Your task to perform on an android device: move a message to another label in the gmail app Image 0: 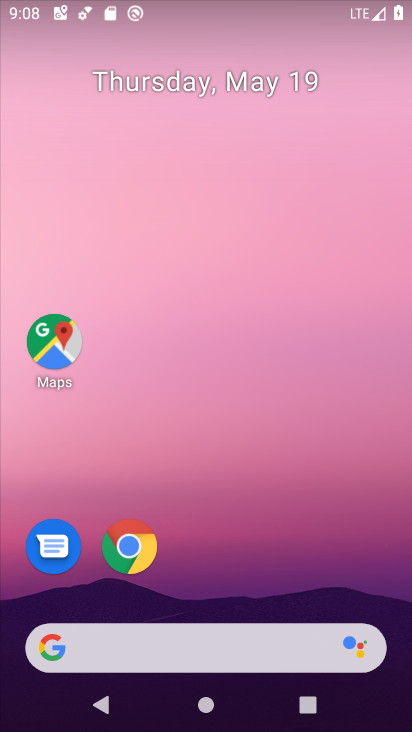
Step 0: drag from (279, 714) to (181, 96)
Your task to perform on an android device: move a message to another label in the gmail app Image 1: 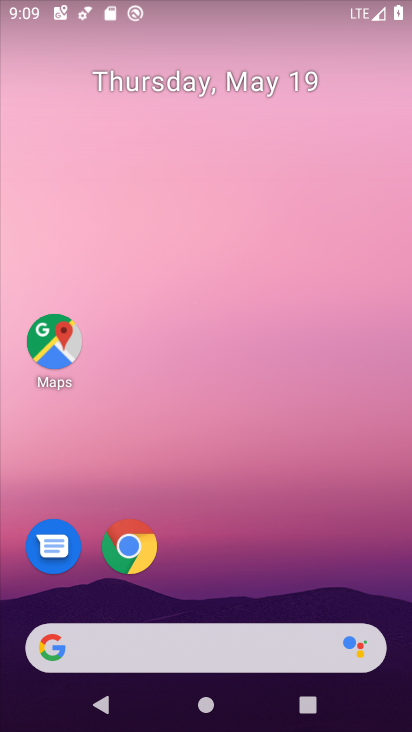
Step 1: drag from (245, 718) to (70, 113)
Your task to perform on an android device: move a message to another label in the gmail app Image 2: 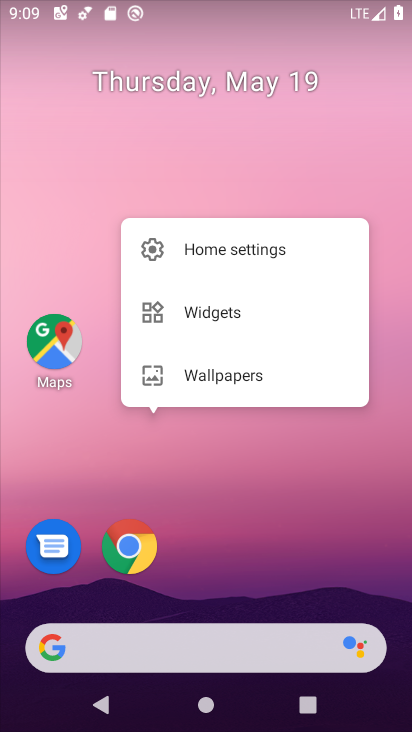
Step 2: drag from (188, 444) to (54, 2)
Your task to perform on an android device: move a message to another label in the gmail app Image 3: 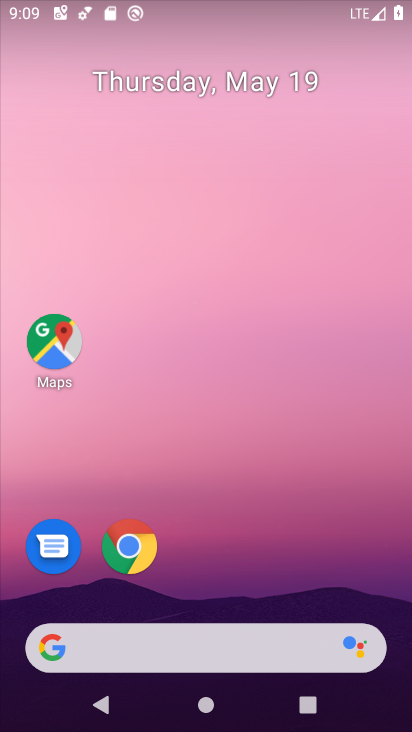
Step 3: drag from (214, 404) to (102, 15)
Your task to perform on an android device: move a message to another label in the gmail app Image 4: 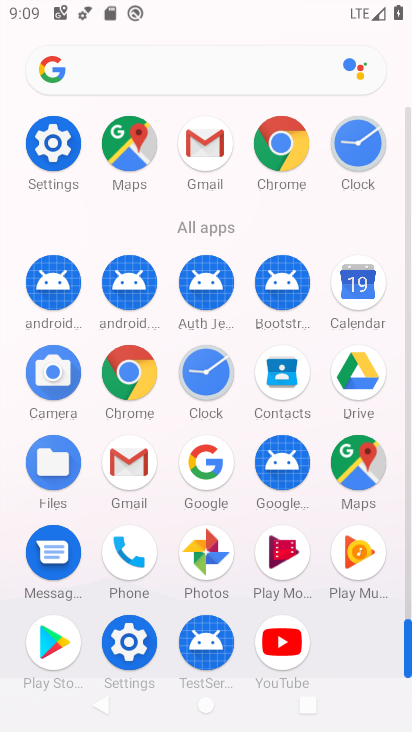
Step 4: drag from (229, 463) to (177, 10)
Your task to perform on an android device: move a message to another label in the gmail app Image 5: 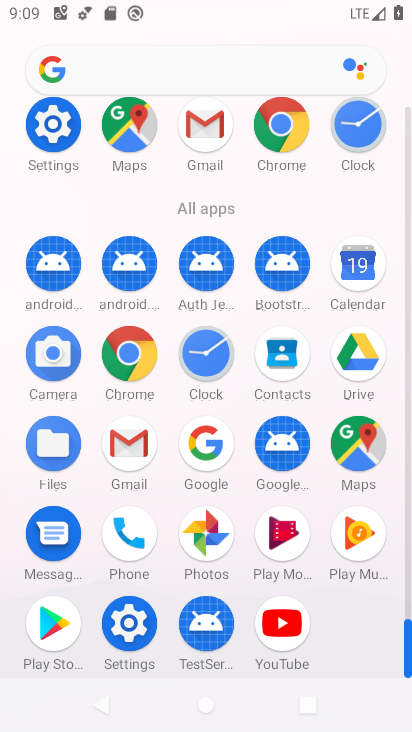
Step 5: click (121, 447)
Your task to perform on an android device: move a message to another label in the gmail app Image 6: 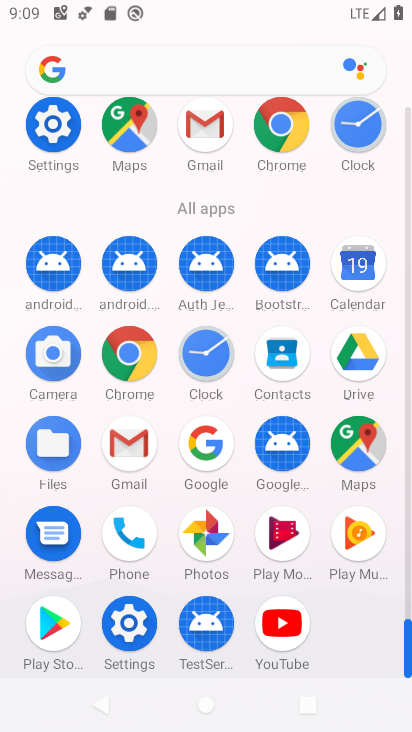
Step 6: click (120, 446)
Your task to perform on an android device: move a message to another label in the gmail app Image 7: 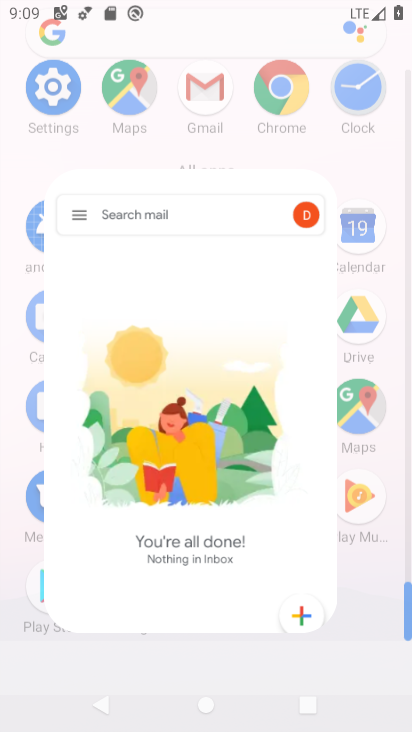
Step 7: click (120, 446)
Your task to perform on an android device: move a message to another label in the gmail app Image 8: 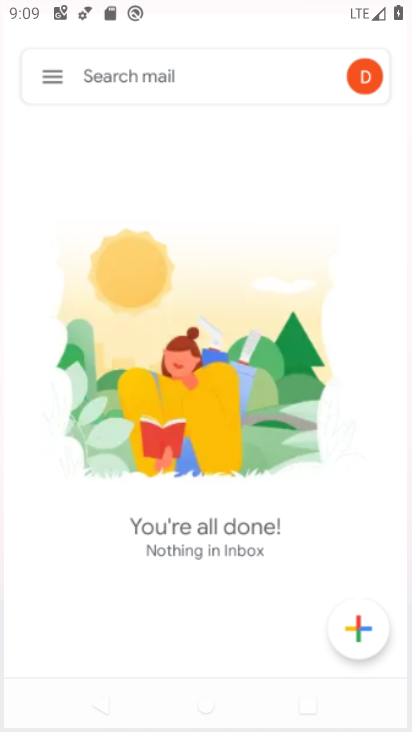
Step 8: click (125, 449)
Your task to perform on an android device: move a message to another label in the gmail app Image 9: 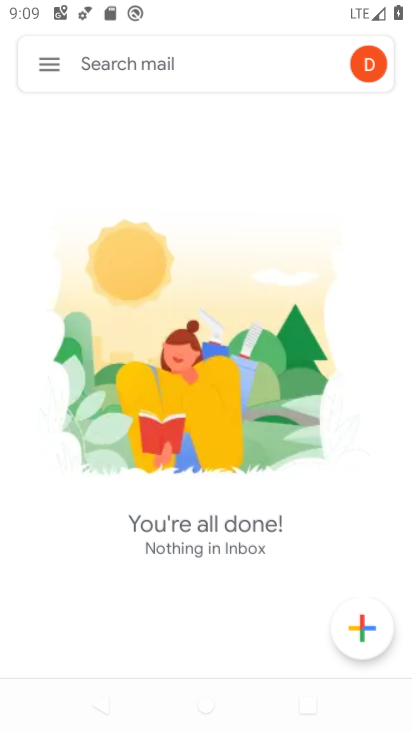
Step 9: click (126, 446)
Your task to perform on an android device: move a message to another label in the gmail app Image 10: 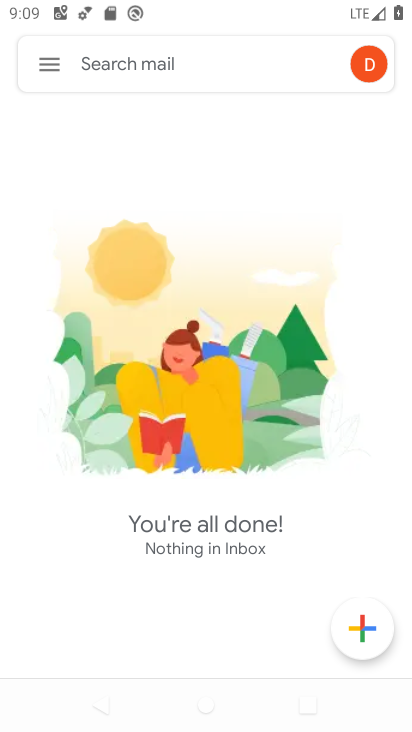
Step 10: click (126, 446)
Your task to perform on an android device: move a message to another label in the gmail app Image 11: 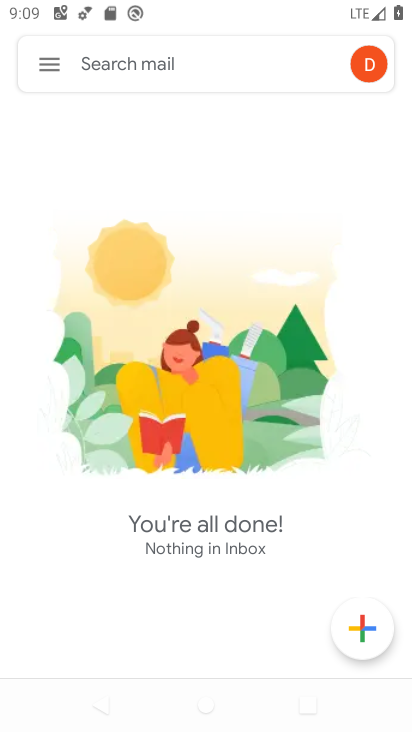
Step 11: click (47, 66)
Your task to perform on an android device: move a message to another label in the gmail app Image 12: 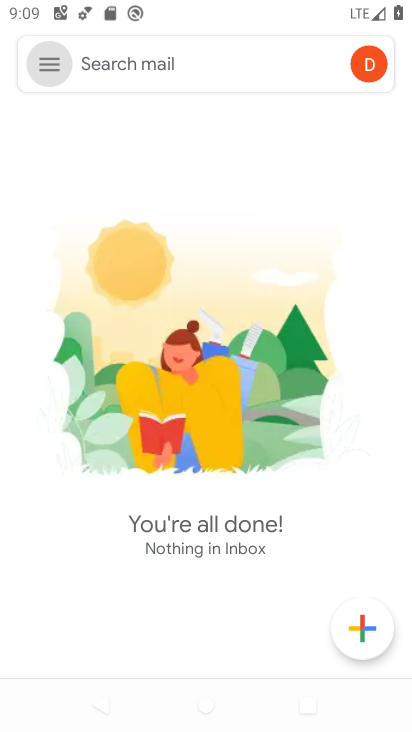
Step 12: click (50, 72)
Your task to perform on an android device: move a message to another label in the gmail app Image 13: 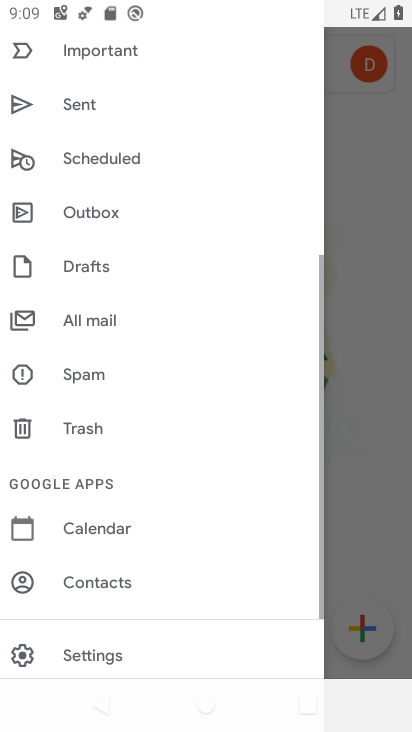
Step 13: click (50, 72)
Your task to perform on an android device: move a message to another label in the gmail app Image 14: 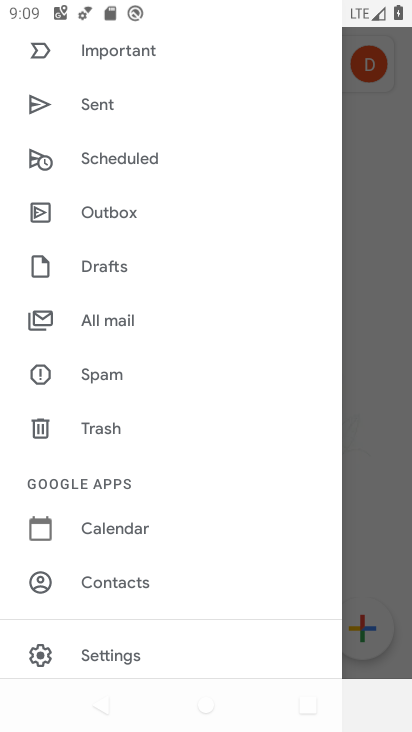
Step 14: click (98, 328)
Your task to perform on an android device: move a message to another label in the gmail app Image 15: 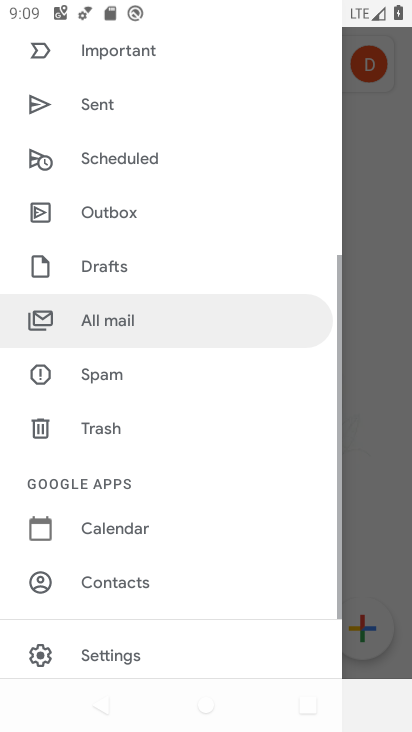
Step 15: click (98, 328)
Your task to perform on an android device: move a message to another label in the gmail app Image 16: 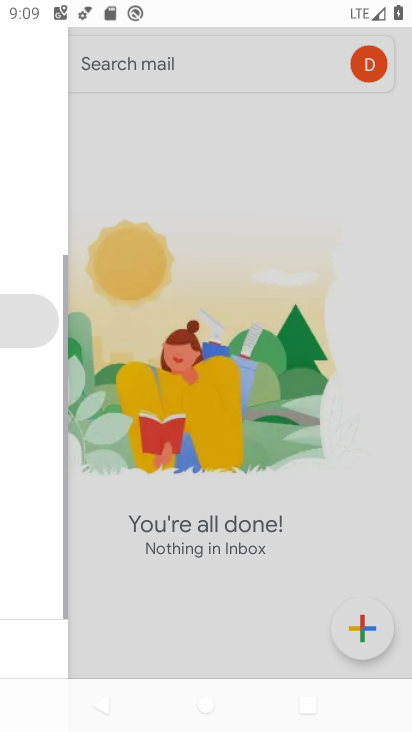
Step 16: click (98, 328)
Your task to perform on an android device: move a message to another label in the gmail app Image 17: 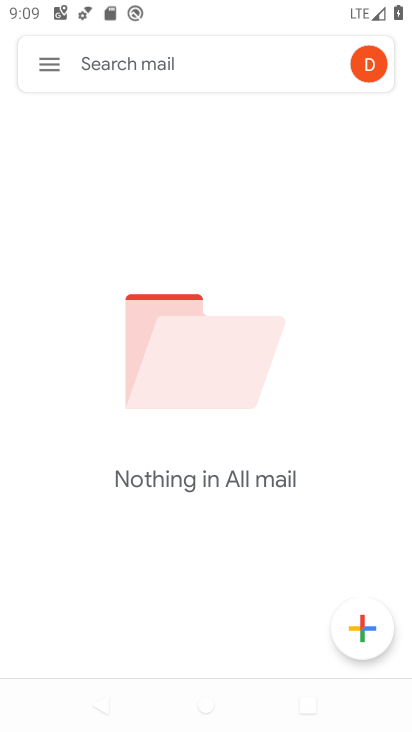
Step 17: task complete